Your task to perform on an android device: Open calendar and show me the fourth week of next month Image 0: 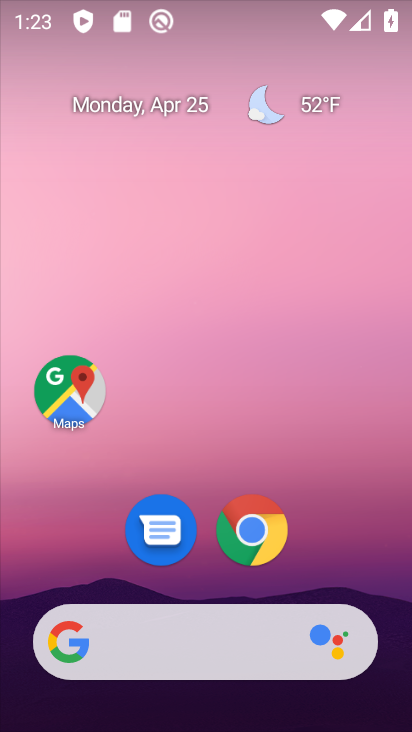
Step 0: drag from (369, 533) to (346, 137)
Your task to perform on an android device: Open calendar and show me the fourth week of next month Image 1: 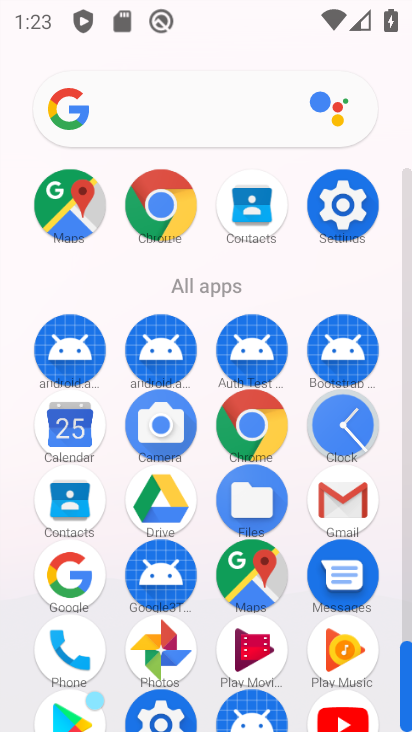
Step 1: click (74, 423)
Your task to perform on an android device: Open calendar and show me the fourth week of next month Image 2: 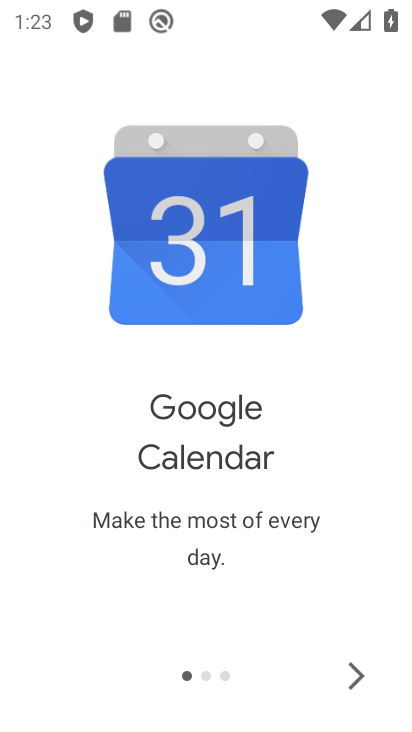
Step 2: click (358, 679)
Your task to perform on an android device: Open calendar and show me the fourth week of next month Image 3: 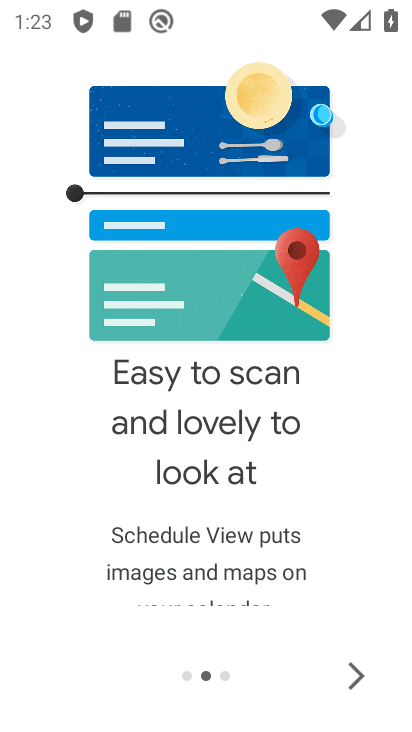
Step 3: click (358, 679)
Your task to perform on an android device: Open calendar and show me the fourth week of next month Image 4: 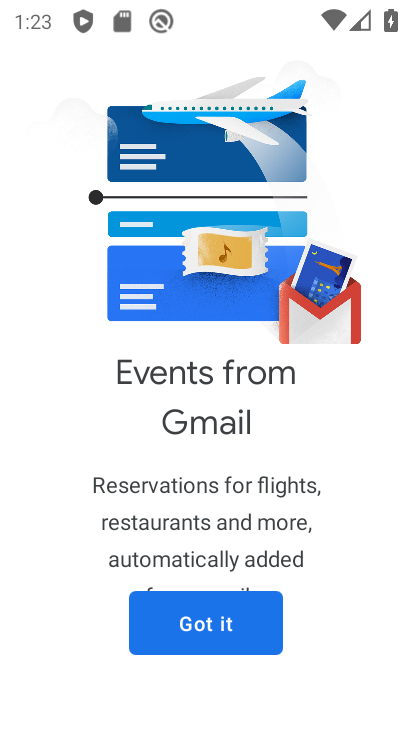
Step 4: click (232, 623)
Your task to perform on an android device: Open calendar and show me the fourth week of next month Image 5: 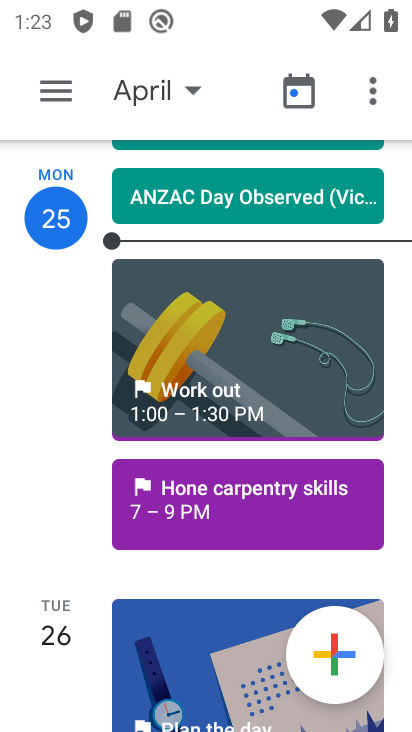
Step 5: click (144, 94)
Your task to perform on an android device: Open calendar and show me the fourth week of next month Image 6: 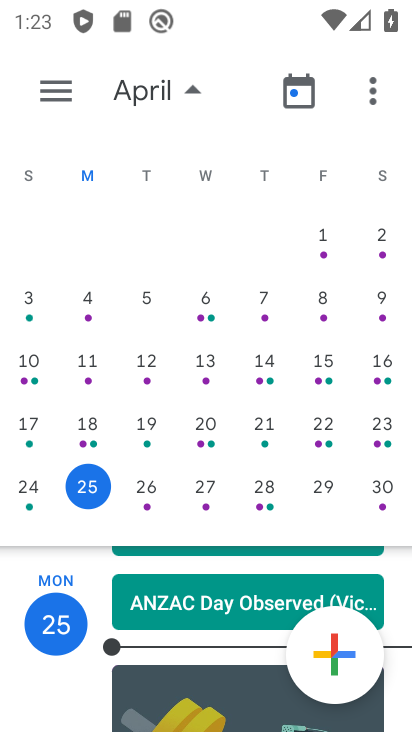
Step 6: drag from (349, 209) to (0, 244)
Your task to perform on an android device: Open calendar and show me the fourth week of next month Image 7: 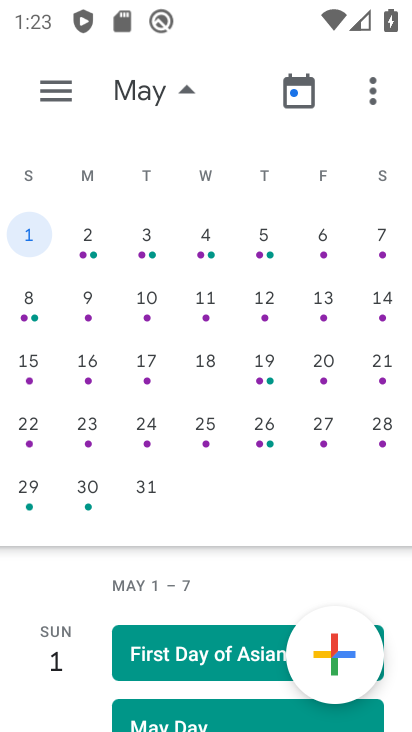
Step 7: click (37, 414)
Your task to perform on an android device: Open calendar and show me the fourth week of next month Image 8: 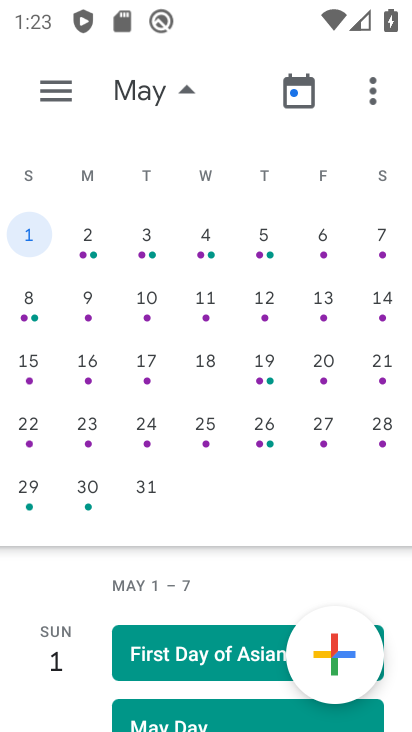
Step 8: click (28, 419)
Your task to perform on an android device: Open calendar and show me the fourth week of next month Image 9: 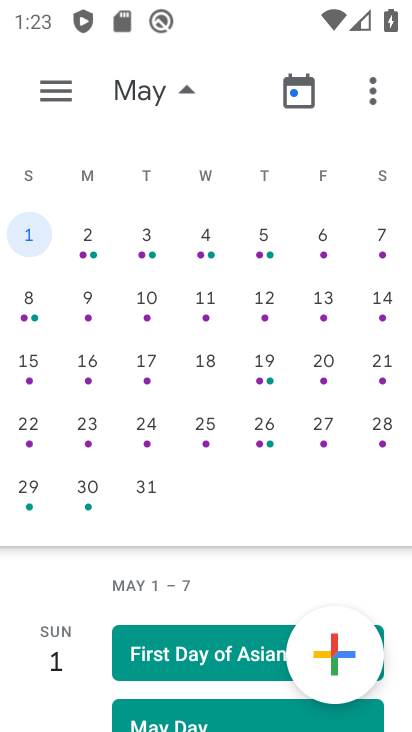
Step 9: click (29, 424)
Your task to perform on an android device: Open calendar and show me the fourth week of next month Image 10: 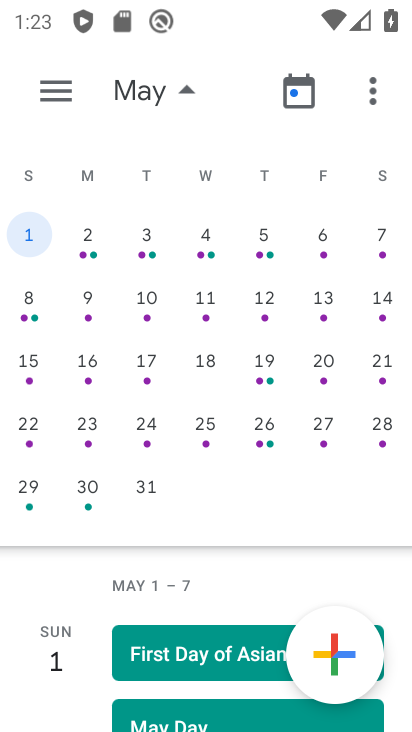
Step 10: click (39, 434)
Your task to perform on an android device: Open calendar and show me the fourth week of next month Image 11: 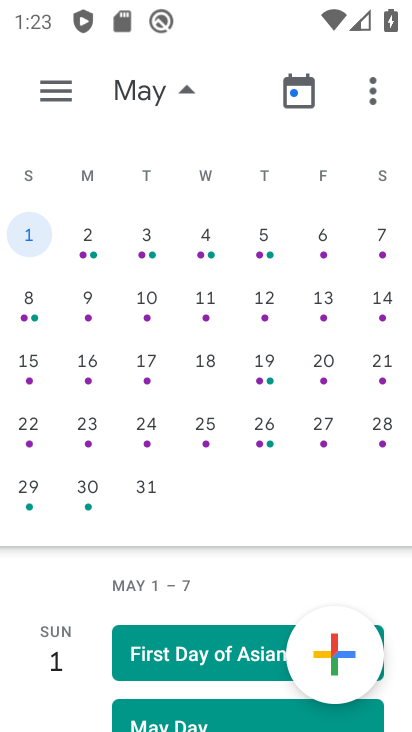
Step 11: click (36, 414)
Your task to perform on an android device: Open calendar and show me the fourth week of next month Image 12: 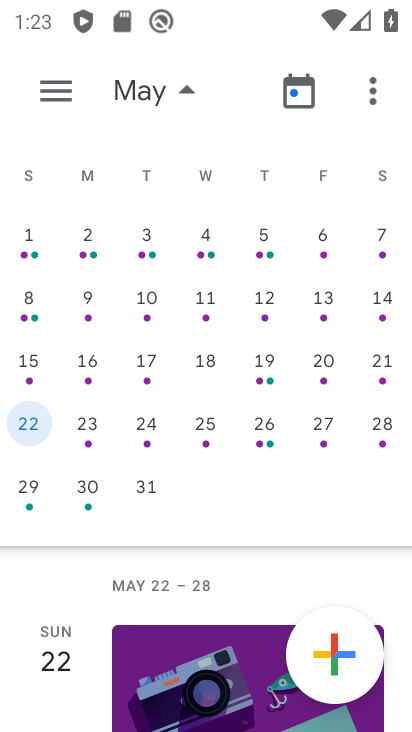
Step 12: task complete